Your task to perform on an android device: Go to wifi settings Image 0: 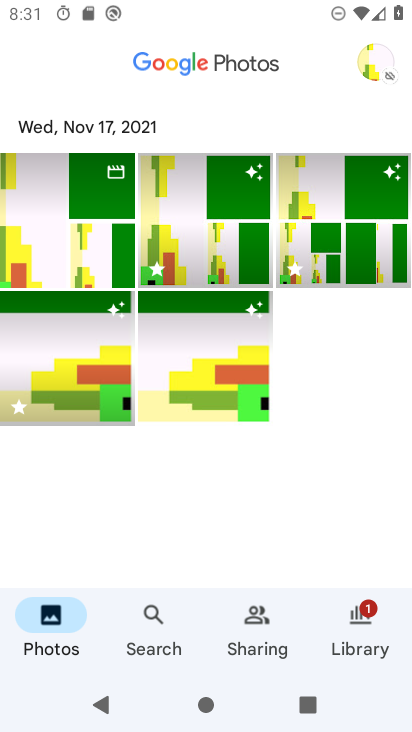
Step 0: press home button
Your task to perform on an android device: Go to wifi settings Image 1: 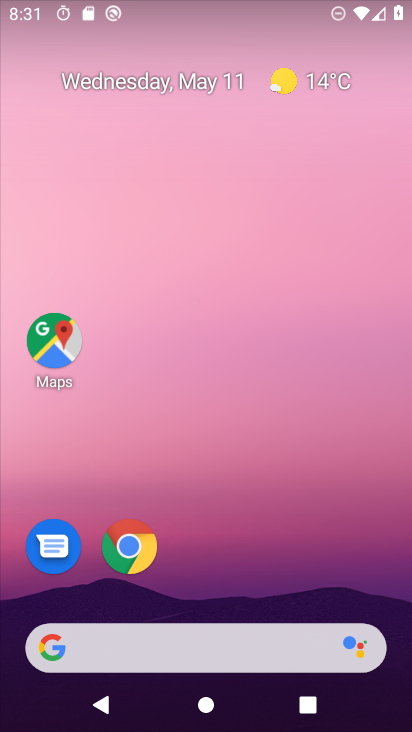
Step 1: drag from (214, 639) to (232, 50)
Your task to perform on an android device: Go to wifi settings Image 2: 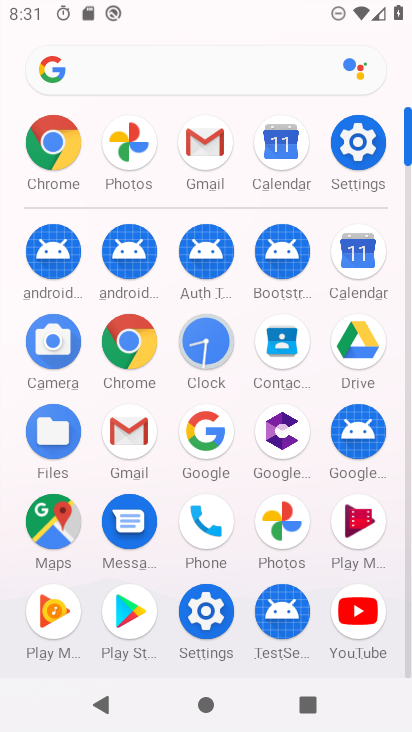
Step 2: click (357, 148)
Your task to perform on an android device: Go to wifi settings Image 3: 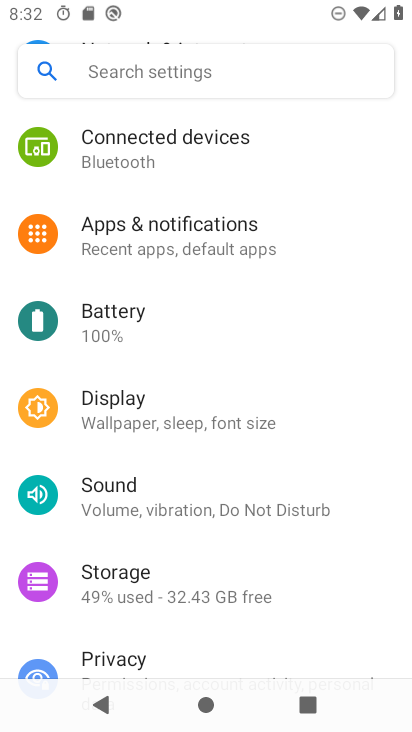
Step 3: drag from (202, 140) to (212, 353)
Your task to perform on an android device: Go to wifi settings Image 4: 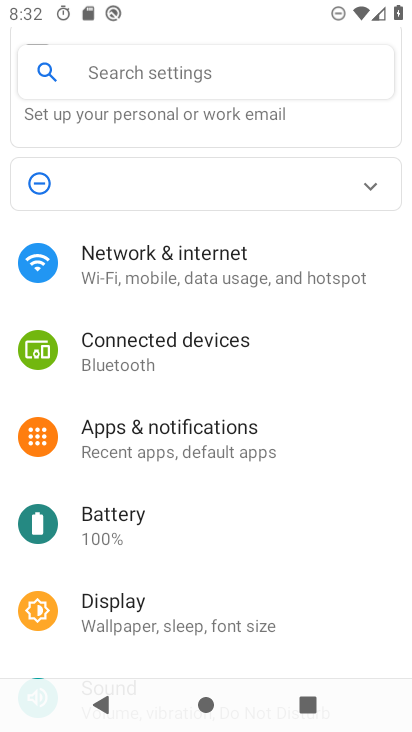
Step 4: click (143, 282)
Your task to perform on an android device: Go to wifi settings Image 5: 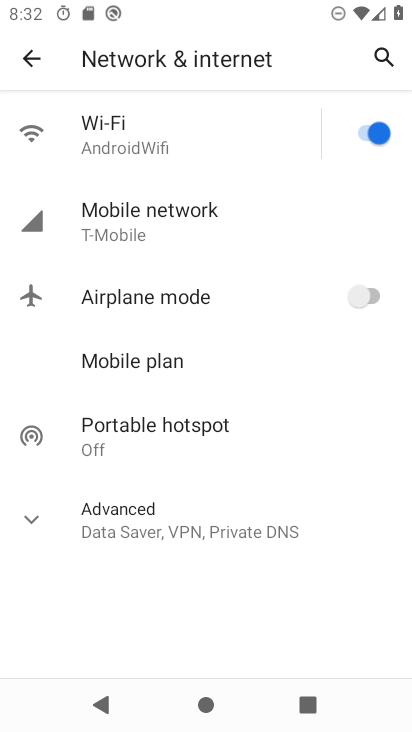
Step 5: click (154, 131)
Your task to perform on an android device: Go to wifi settings Image 6: 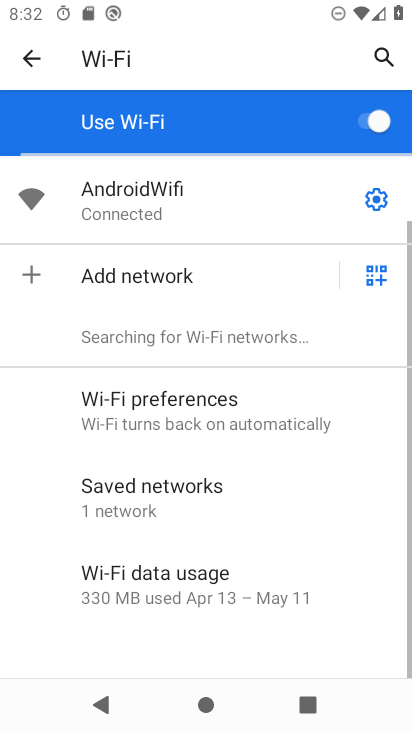
Step 6: task complete